Your task to perform on an android device: find snoozed emails in the gmail app Image 0: 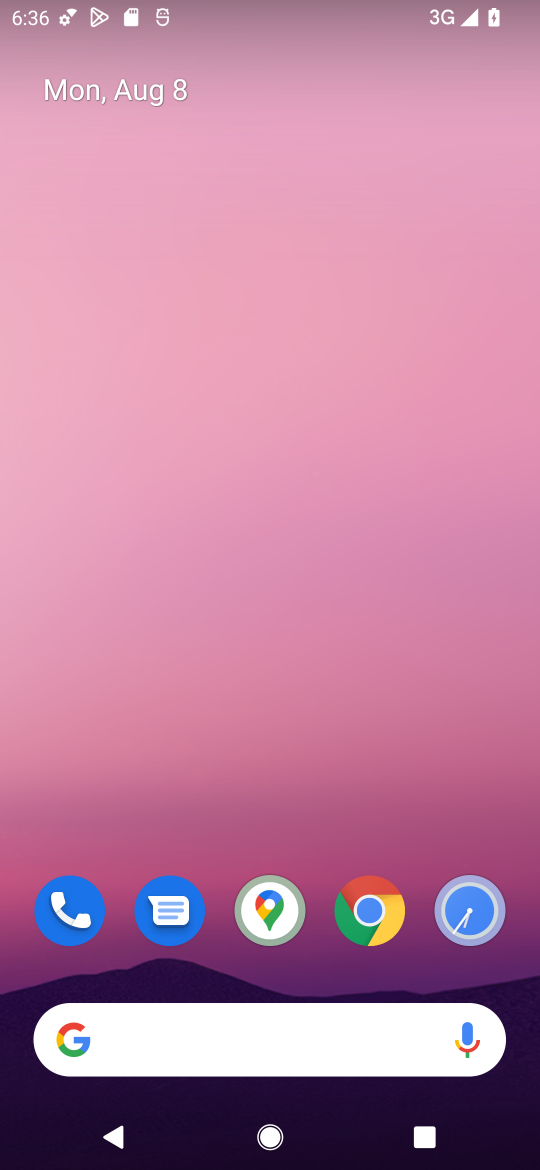
Step 0: drag from (308, 856) to (250, 171)
Your task to perform on an android device: find snoozed emails in the gmail app Image 1: 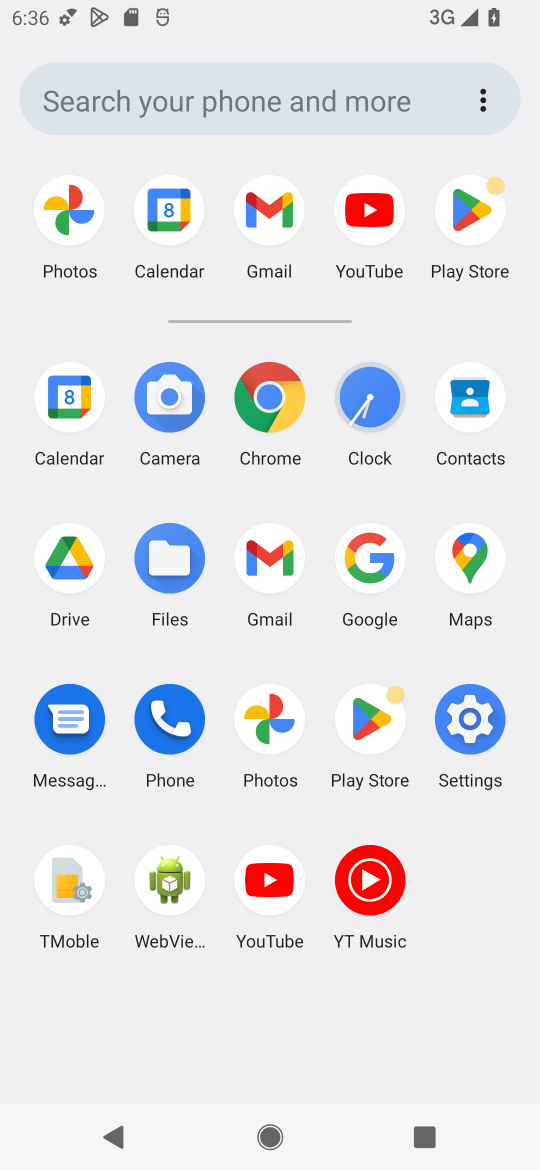
Step 1: click (247, 196)
Your task to perform on an android device: find snoozed emails in the gmail app Image 2: 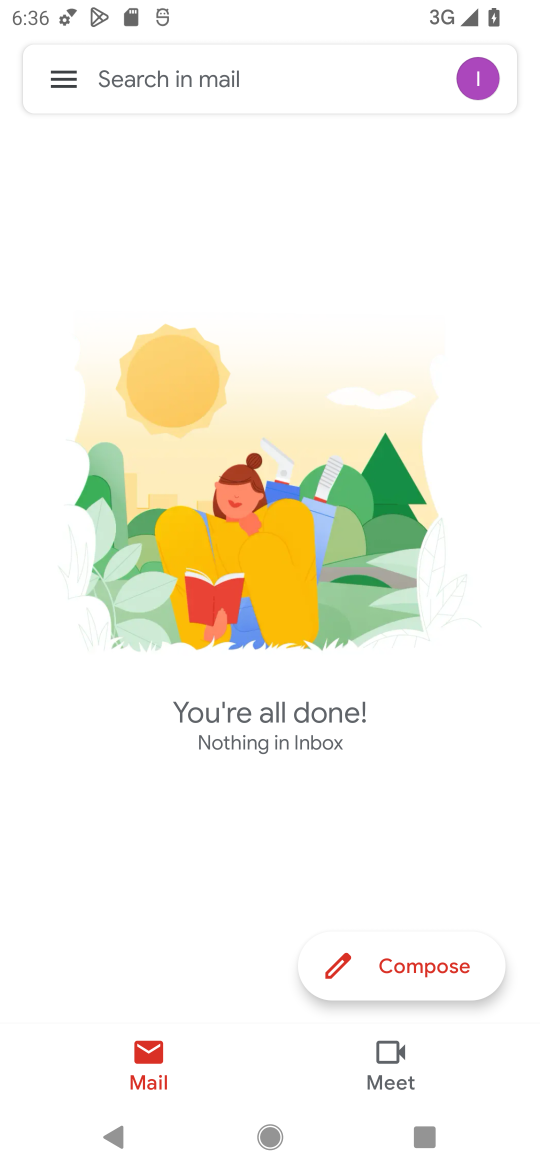
Step 2: click (67, 79)
Your task to perform on an android device: find snoozed emails in the gmail app Image 3: 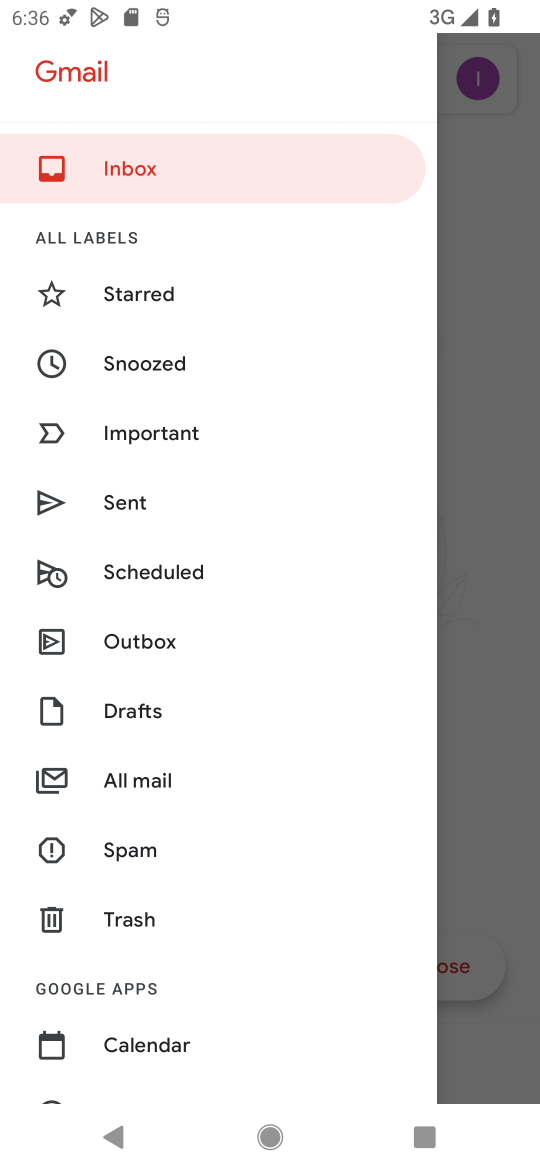
Step 3: click (171, 360)
Your task to perform on an android device: find snoozed emails in the gmail app Image 4: 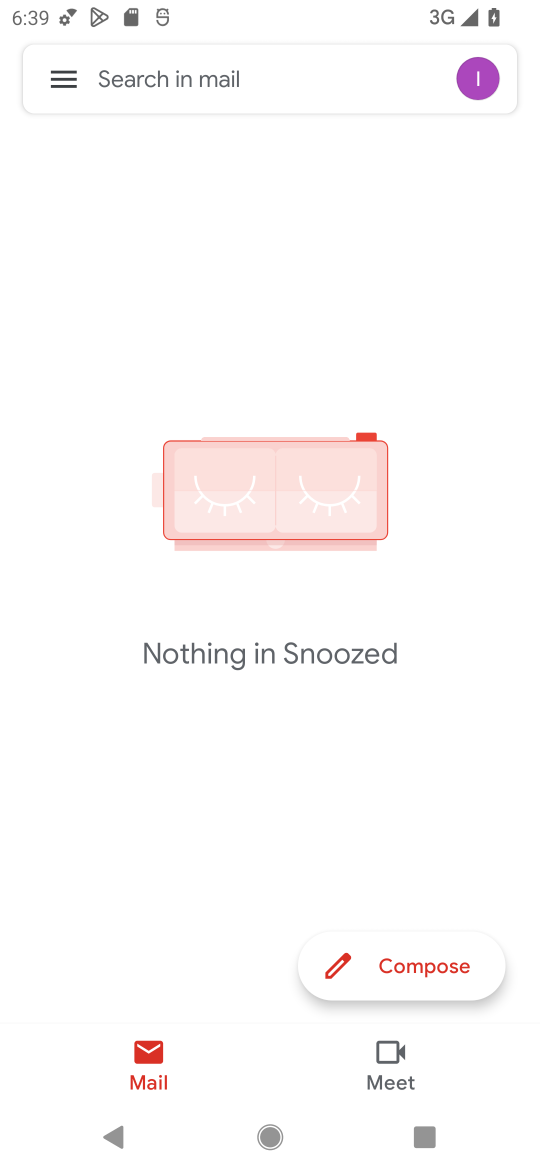
Step 4: task complete